Your task to perform on an android device: turn off airplane mode Image 0: 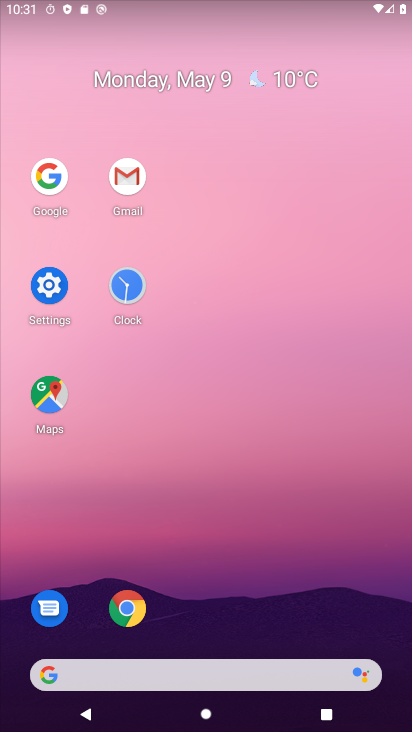
Step 0: click (40, 285)
Your task to perform on an android device: turn off airplane mode Image 1: 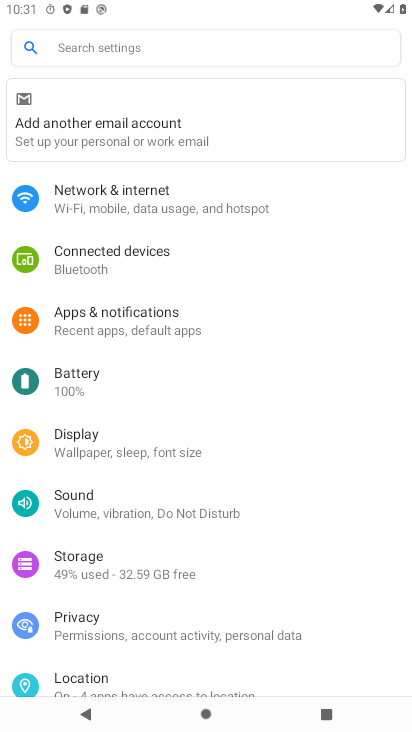
Step 1: click (155, 203)
Your task to perform on an android device: turn off airplane mode Image 2: 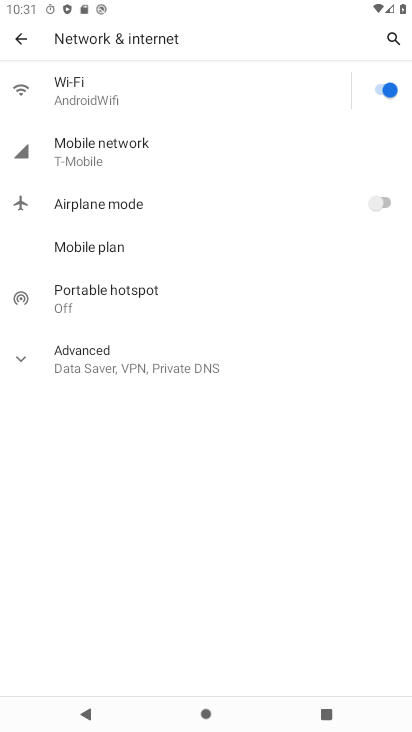
Step 2: click (119, 60)
Your task to perform on an android device: turn off airplane mode Image 3: 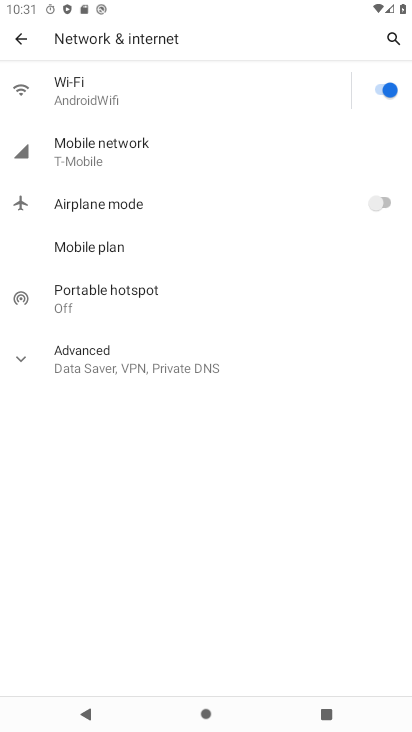
Step 3: click (121, 114)
Your task to perform on an android device: turn off airplane mode Image 4: 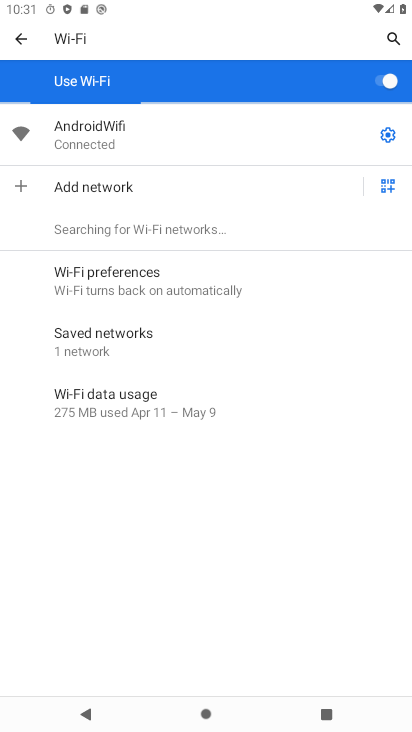
Step 4: click (21, 36)
Your task to perform on an android device: turn off airplane mode Image 5: 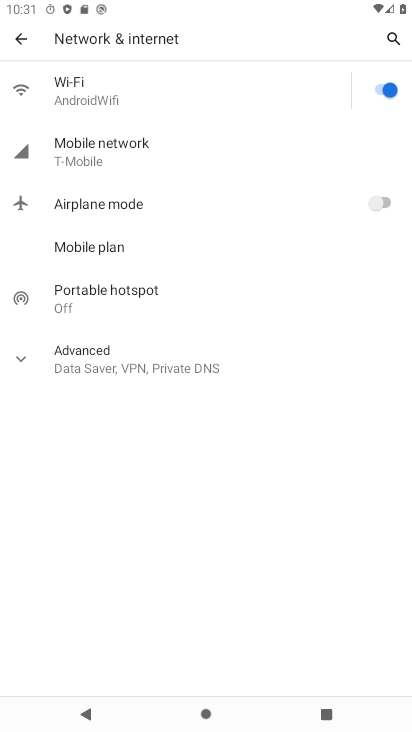
Step 5: drag from (180, 150) to (220, 425)
Your task to perform on an android device: turn off airplane mode Image 6: 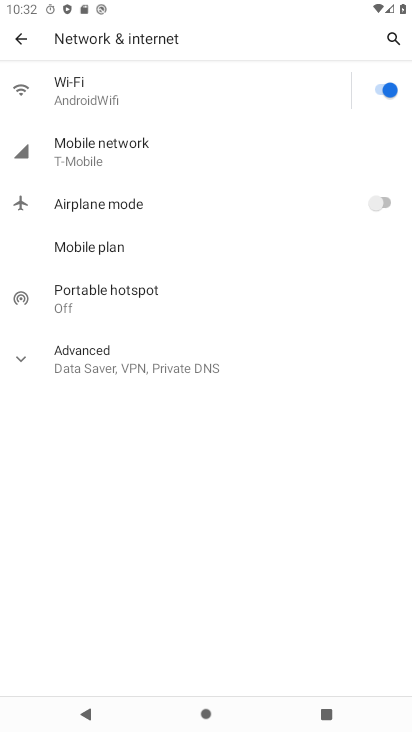
Step 6: click (16, 21)
Your task to perform on an android device: turn off airplane mode Image 7: 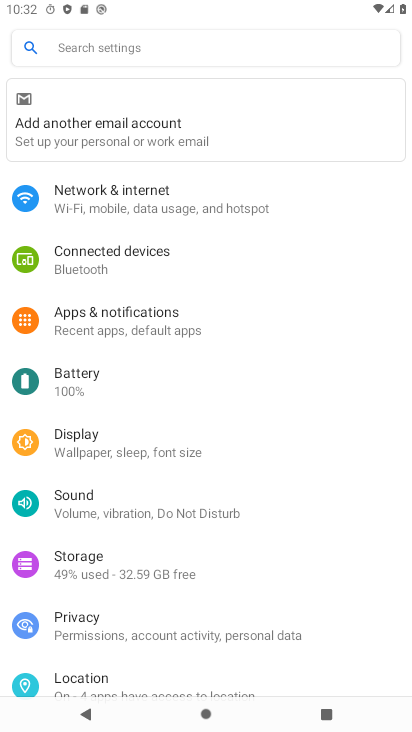
Step 7: drag from (134, 212) to (169, 423)
Your task to perform on an android device: turn off airplane mode Image 8: 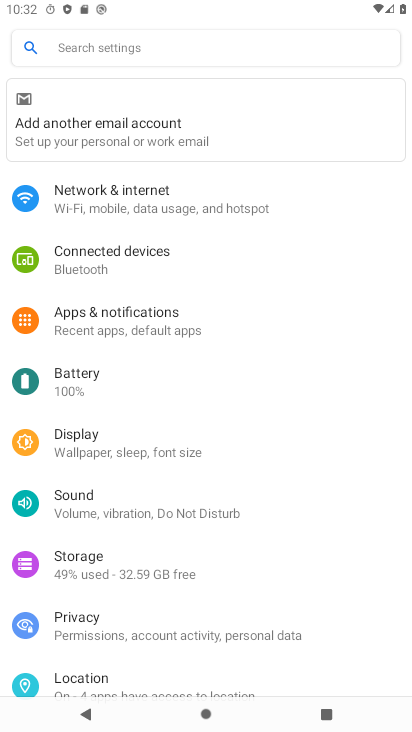
Step 8: click (161, 179)
Your task to perform on an android device: turn off airplane mode Image 9: 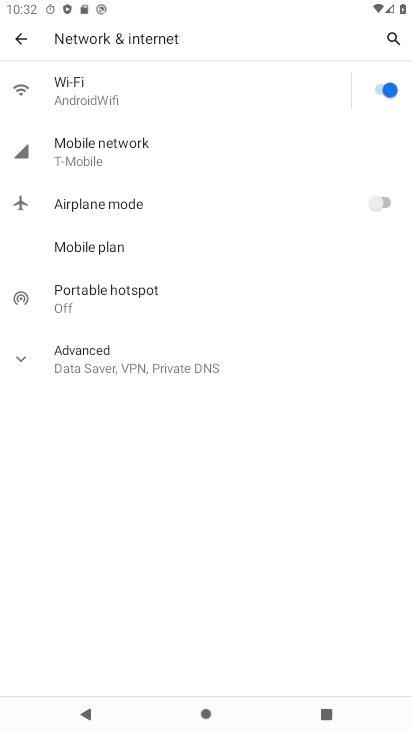
Step 9: click (151, 164)
Your task to perform on an android device: turn off airplane mode Image 10: 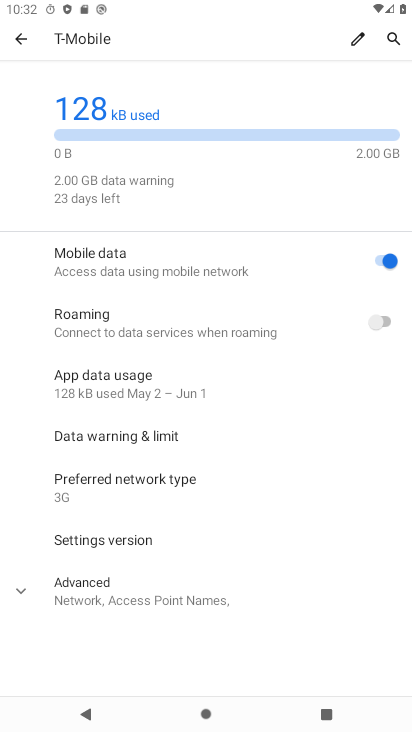
Step 10: click (9, 38)
Your task to perform on an android device: turn off airplane mode Image 11: 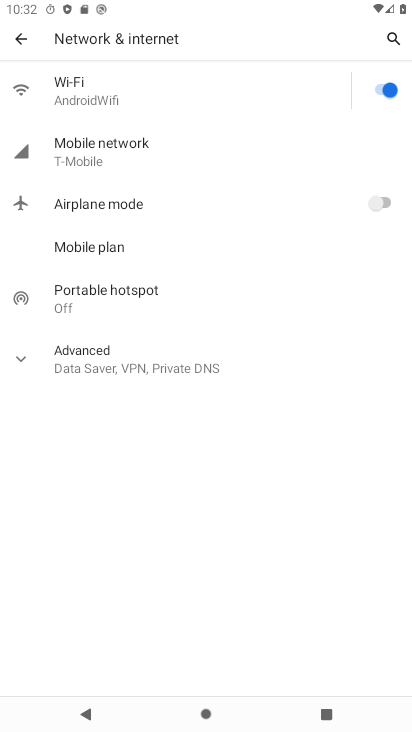
Step 11: click (151, 93)
Your task to perform on an android device: turn off airplane mode Image 12: 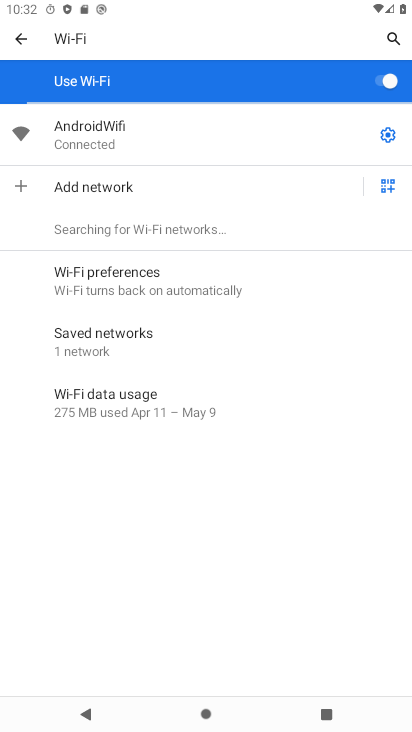
Step 12: click (18, 44)
Your task to perform on an android device: turn off airplane mode Image 13: 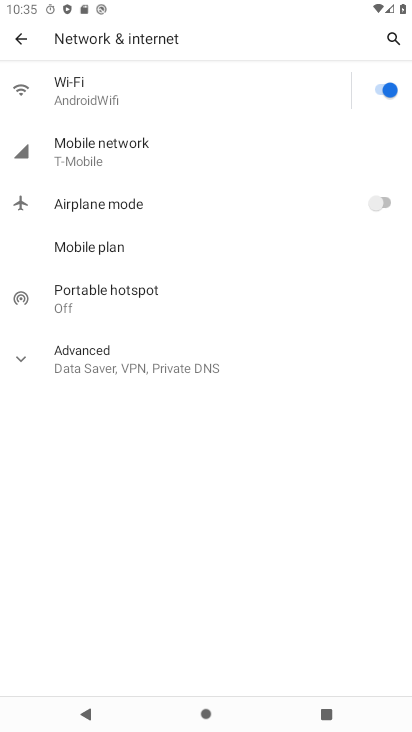
Step 13: task complete